Your task to perform on an android device: See recent photos Image 0: 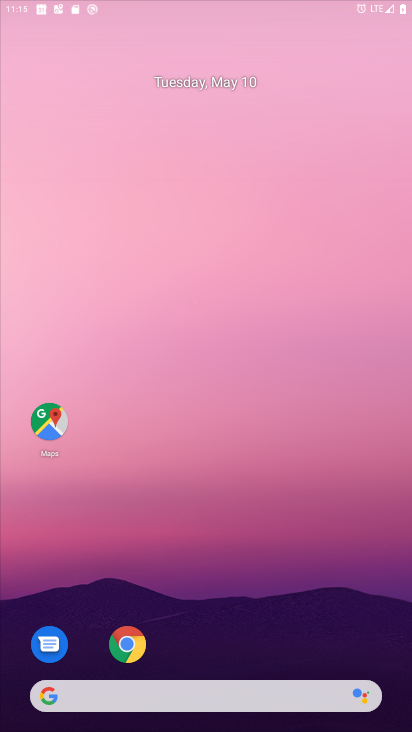
Step 0: drag from (238, 566) to (260, 145)
Your task to perform on an android device: See recent photos Image 1: 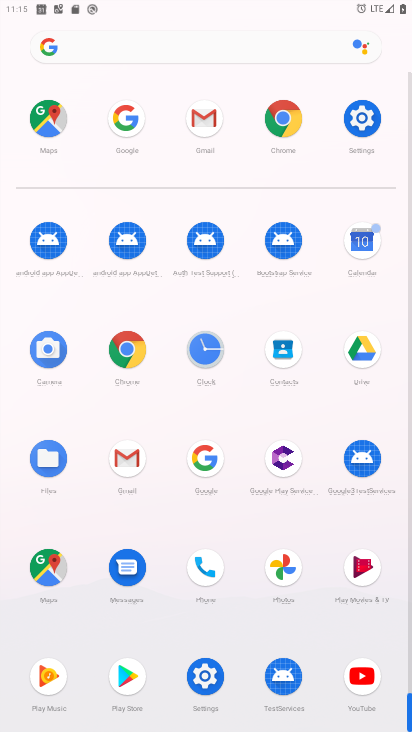
Step 1: click (285, 576)
Your task to perform on an android device: See recent photos Image 2: 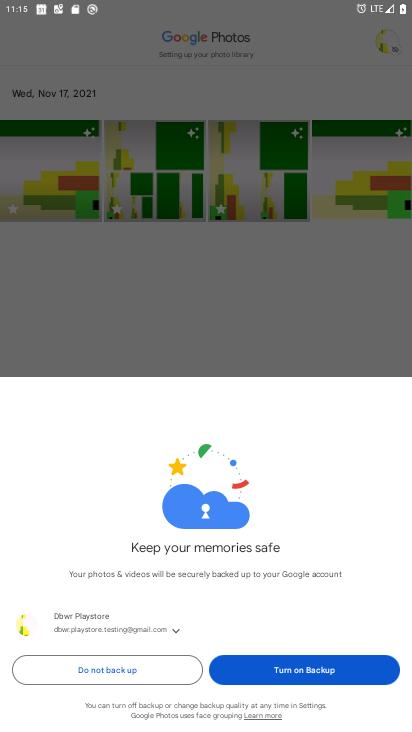
Step 2: click (327, 298)
Your task to perform on an android device: See recent photos Image 3: 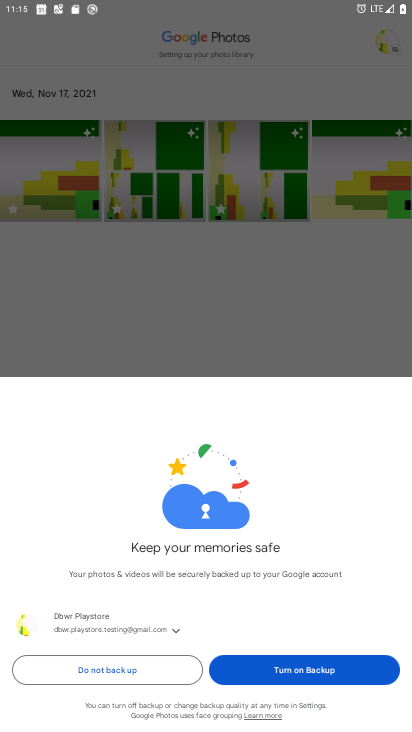
Step 3: click (297, 661)
Your task to perform on an android device: See recent photos Image 4: 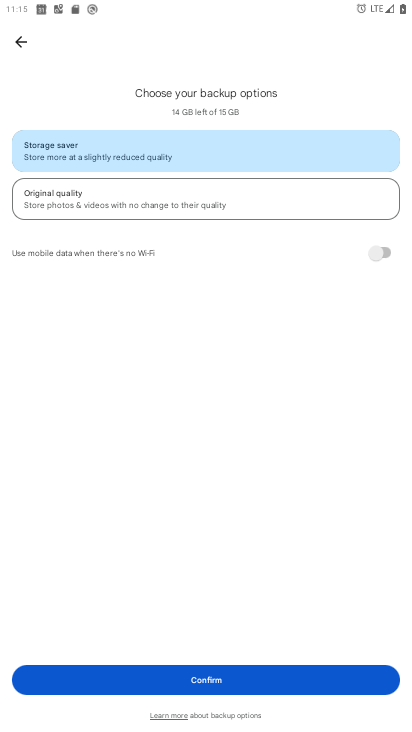
Step 4: click (267, 687)
Your task to perform on an android device: See recent photos Image 5: 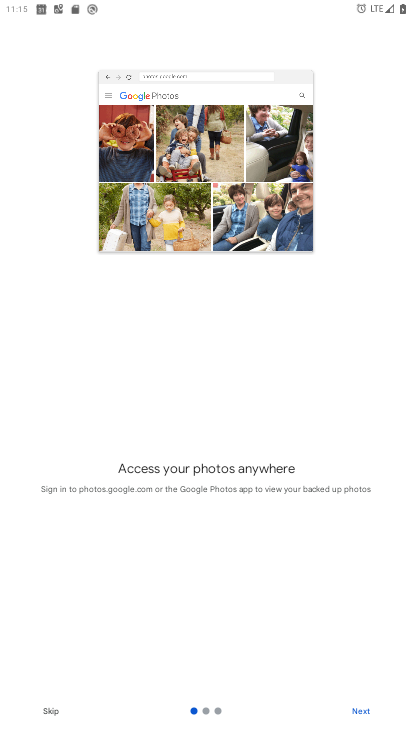
Step 5: click (361, 711)
Your task to perform on an android device: See recent photos Image 6: 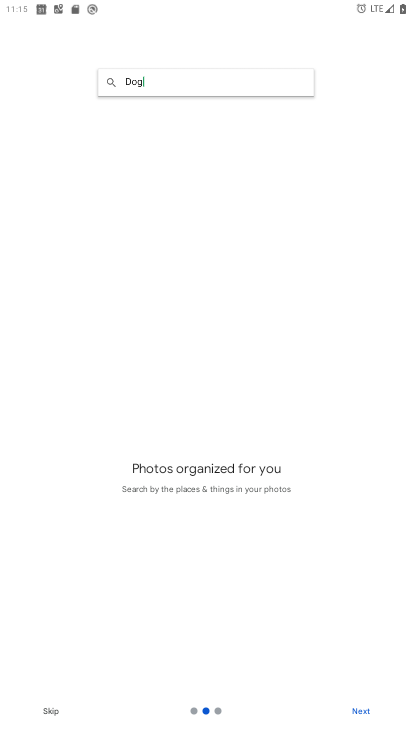
Step 6: click (361, 711)
Your task to perform on an android device: See recent photos Image 7: 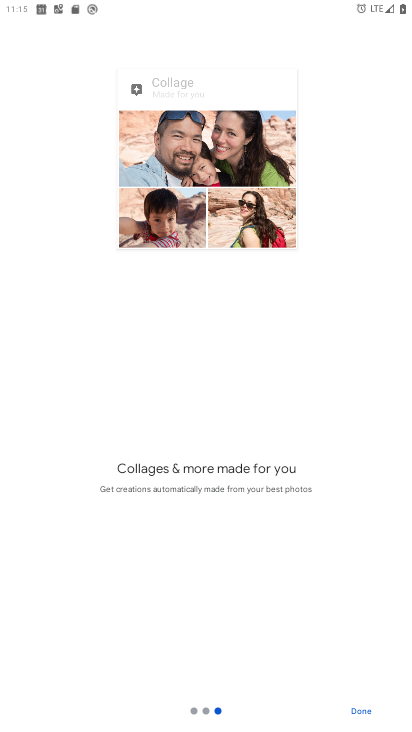
Step 7: click (349, 716)
Your task to perform on an android device: See recent photos Image 8: 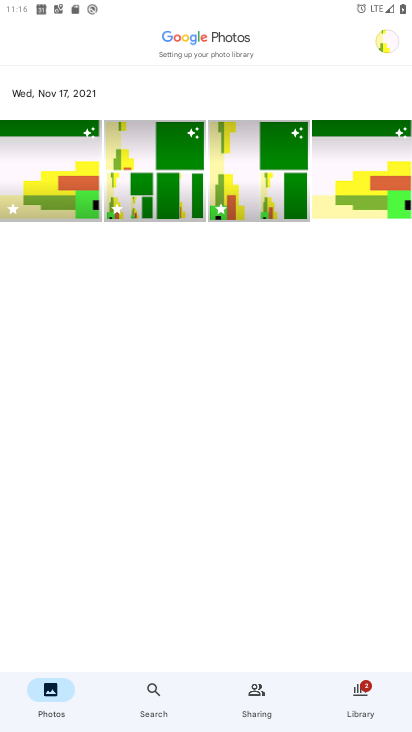
Step 8: task complete